Your task to perform on an android device: turn off javascript in the chrome app Image 0: 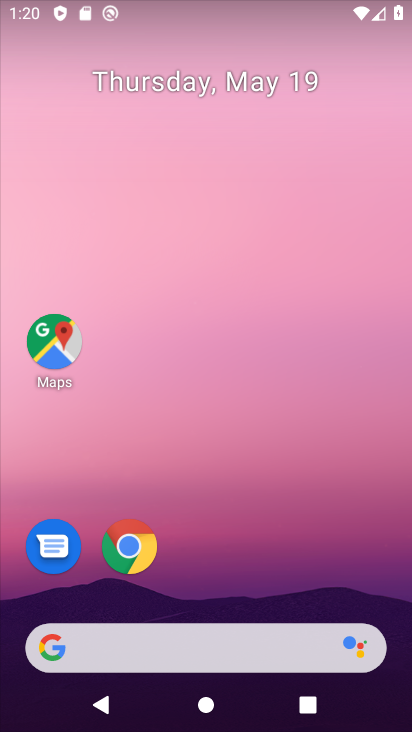
Step 0: click (130, 539)
Your task to perform on an android device: turn off javascript in the chrome app Image 1: 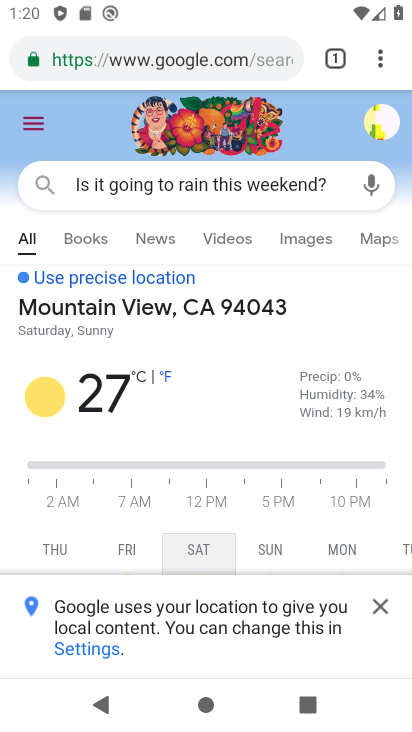
Step 1: click (380, 57)
Your task to perform on an android device: turn off javascript in the chrome app Image 2: 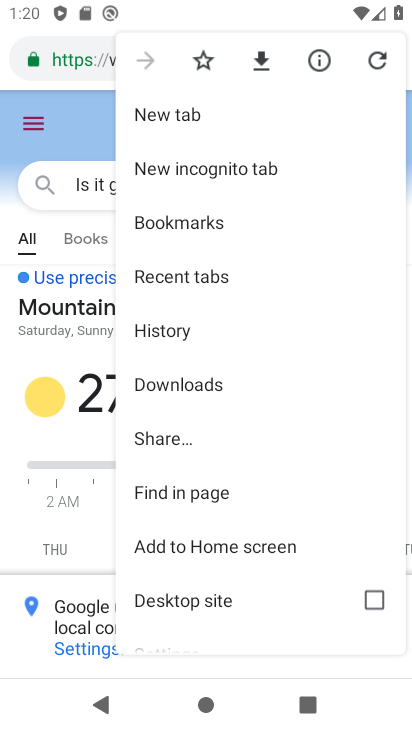
Step 2: drag from (195, 502) to (224, 214)
Your task to perform on an android device: turn off javascript in the chrome app Image 3: 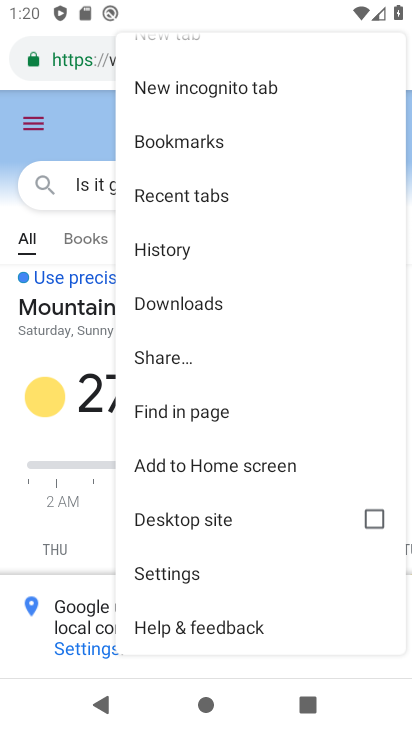
Step 3: click (183, 568)
Your task to perform on an android device: turn off javascript in the chrome app Image 4: 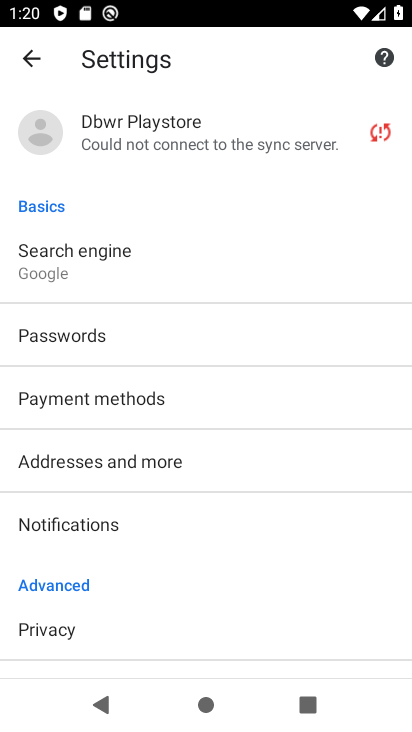
Step 4: drag from (148, 569) to (202, 220)
Your task to perform on an android device: turn off javascript in the chrome app Image 5: 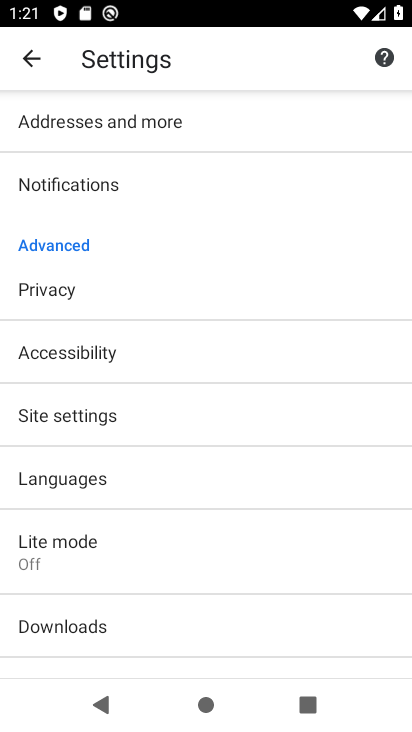
Step 5: click (93, 418)
Your task to perform on an android device: turn off javascript in the chrome app Image 6: 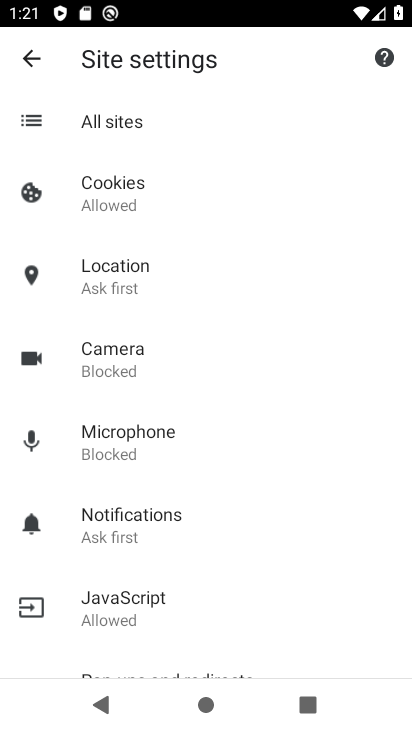
Step 6: click (154, 606)
Your task to perform on an android device: turn off javascript in the chrome app Image 7: 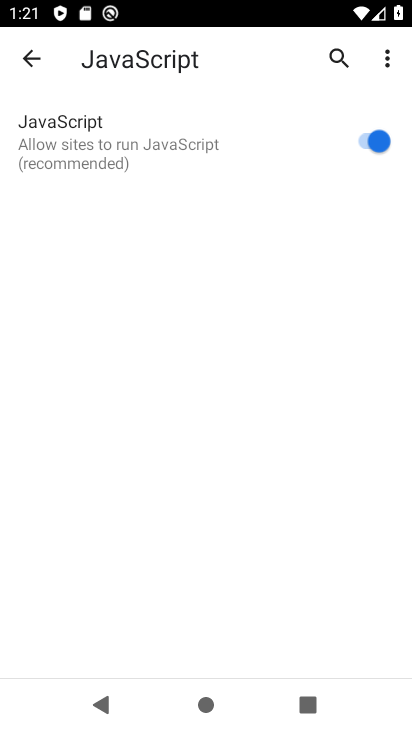
Step 7: click (381, 140)
Your task to perform on an android device: turn off javascript in the chrome app Image 8: 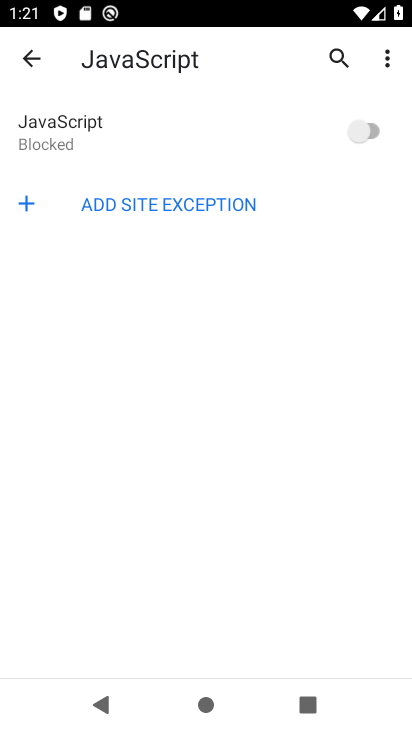
Step 8: task complete